Your task to perform on an android device: move an email to a new category in the gmail app Image 0: 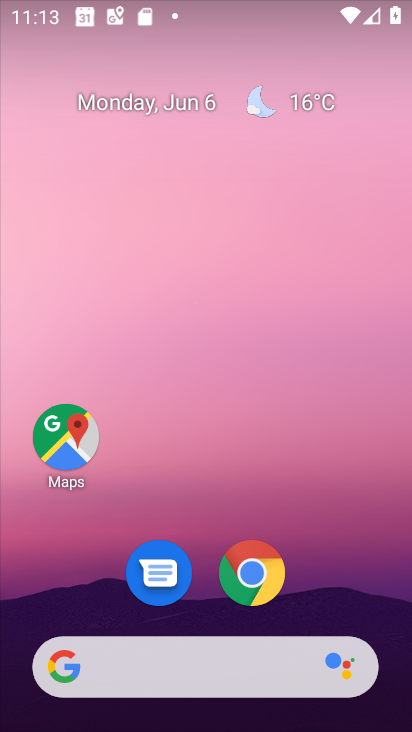
Step 0: drag from (204, 578) to (326, 203)
Your task to perform on an android device: move an email to a new category in the gmail app Image 1: 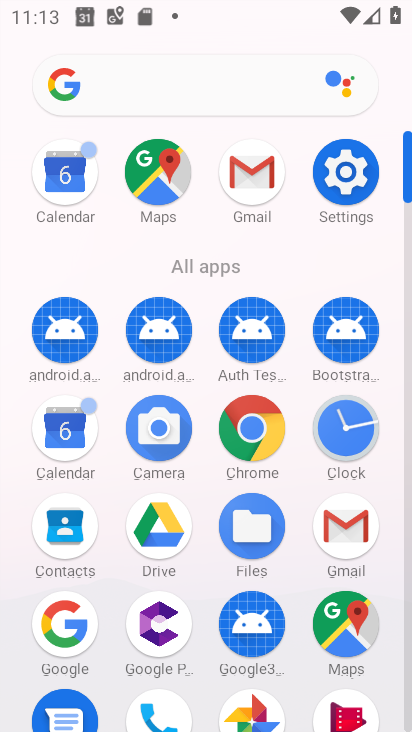
Step 1: click (346, 542)
Your task to perform on an android device: move an email to a new category in the gmail app Image 2: 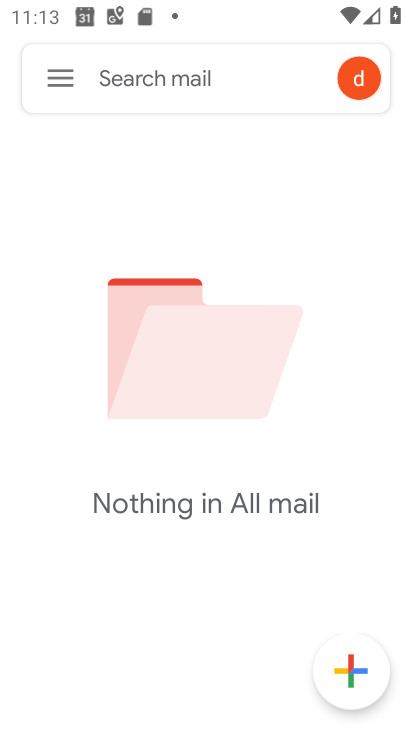
Step 2: task complete